Your task to perform on an android device: Open Wikipedia Image 0: 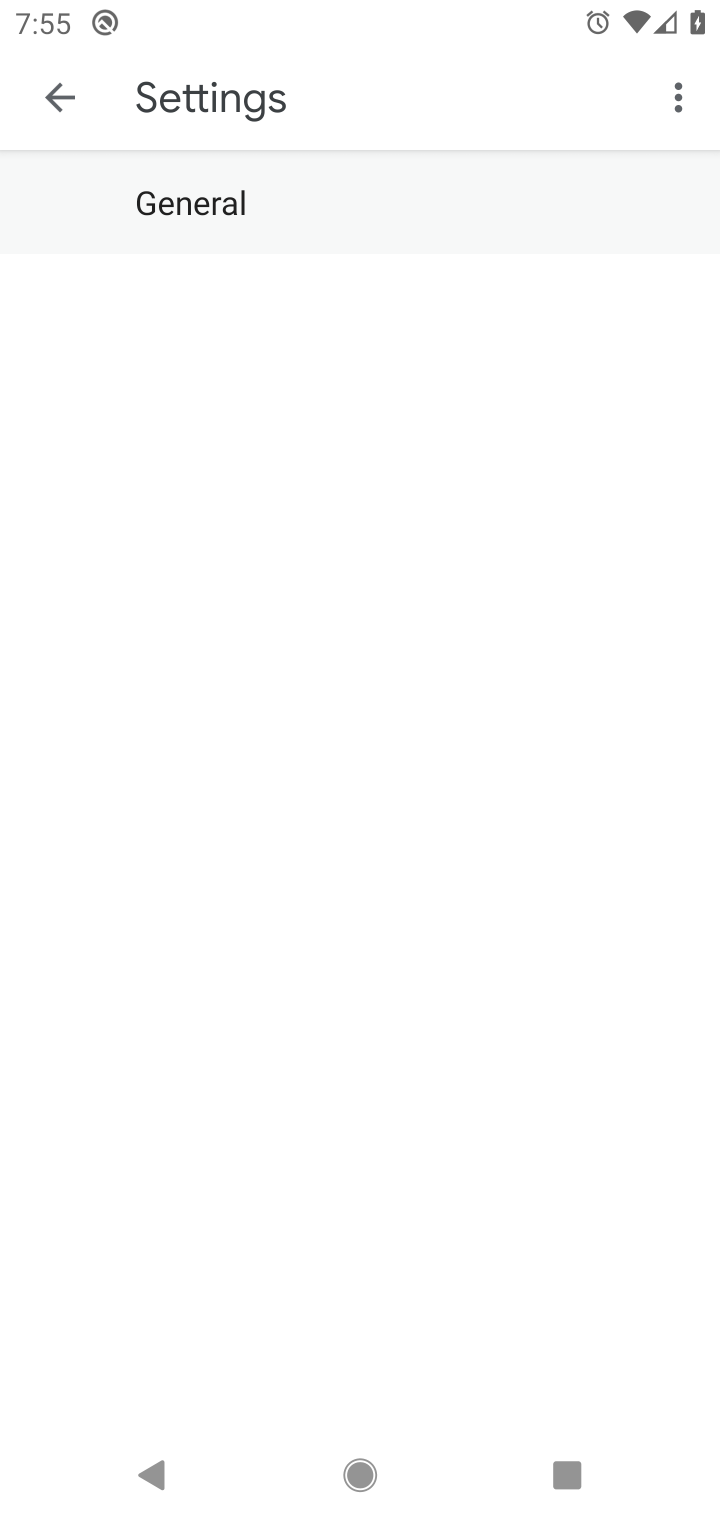
Step 0: press home button
Your task to perform on an android device: Open Wikipedia Image 1: 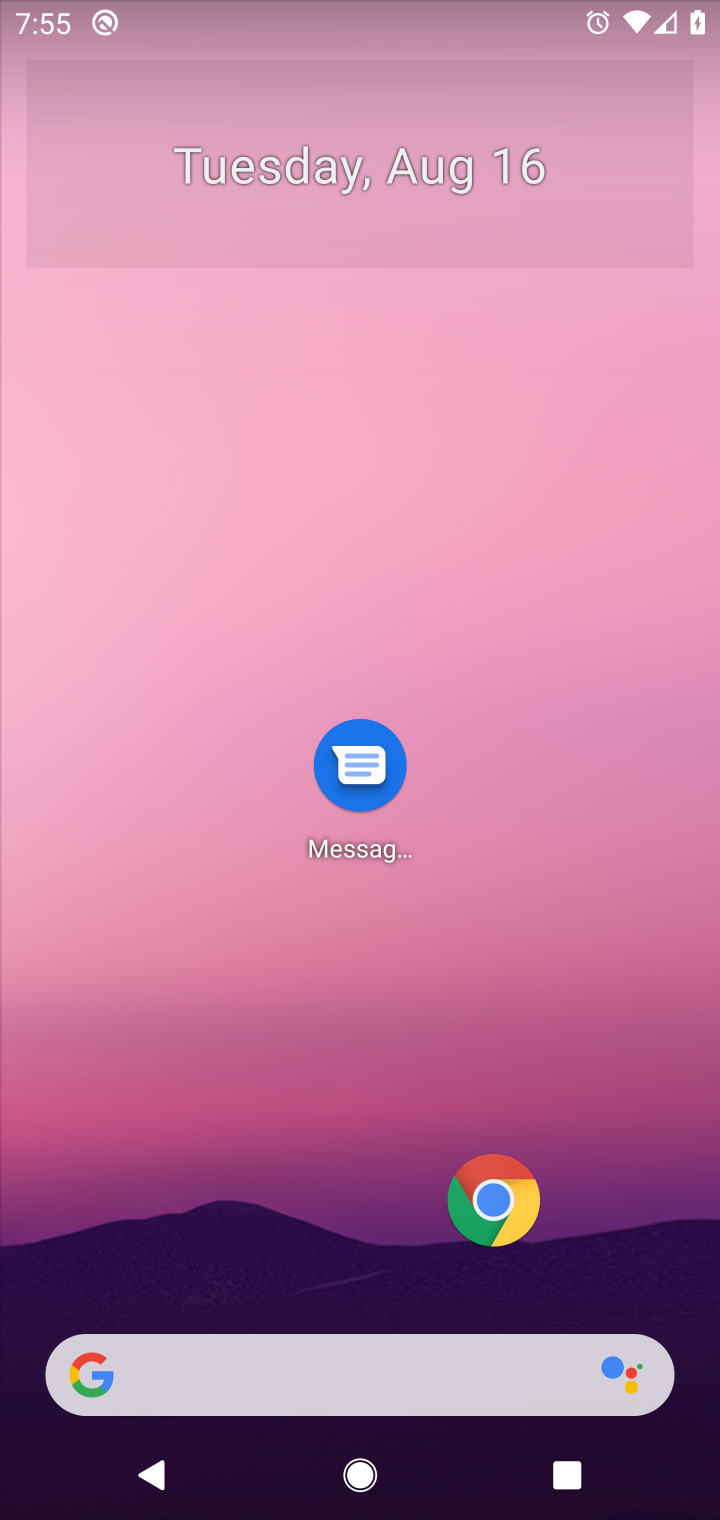
Step 1: click (198, 1340)
Your task to perform on an android device: Open Wikipedia Image 2: 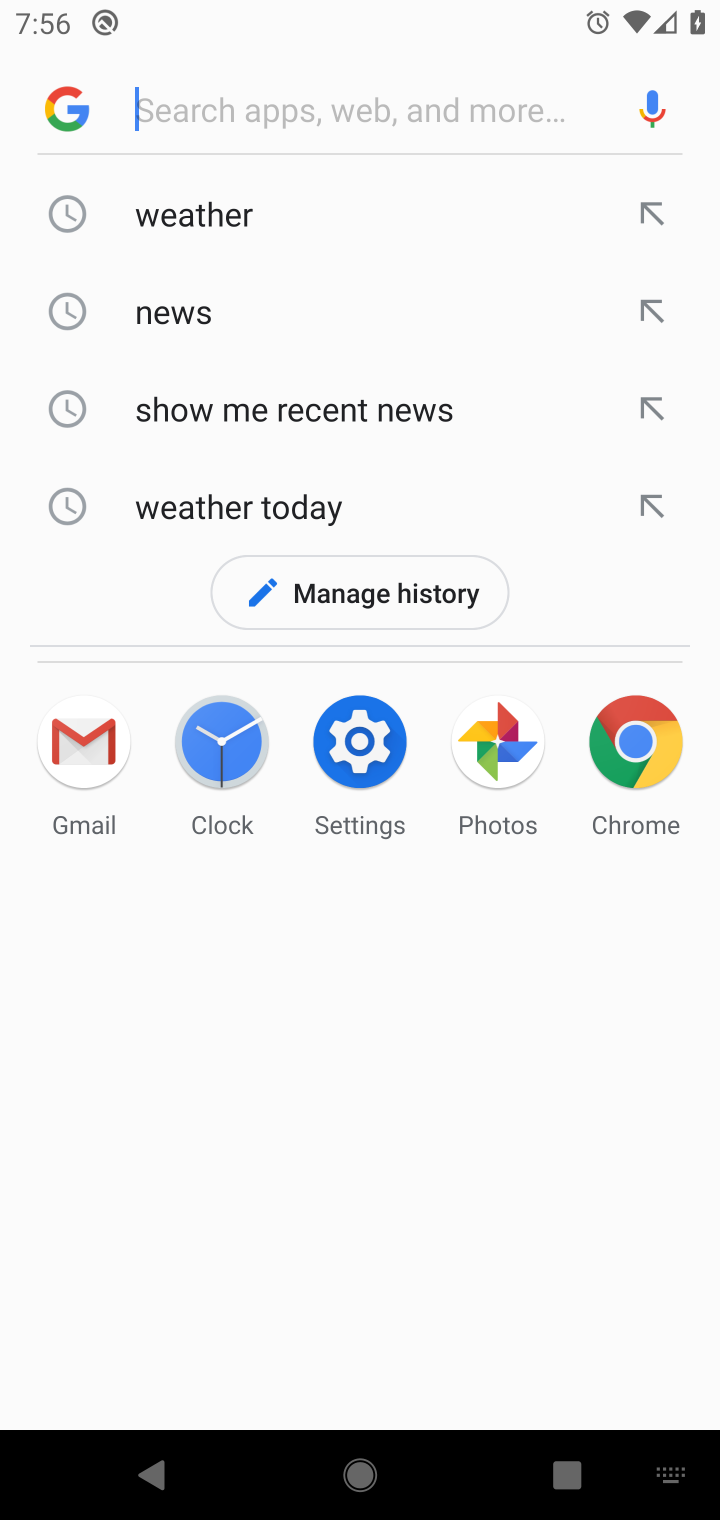
Step 2: type "Wikipedia"
Your task to perform on an android device: Open Wikipedia Image 3: 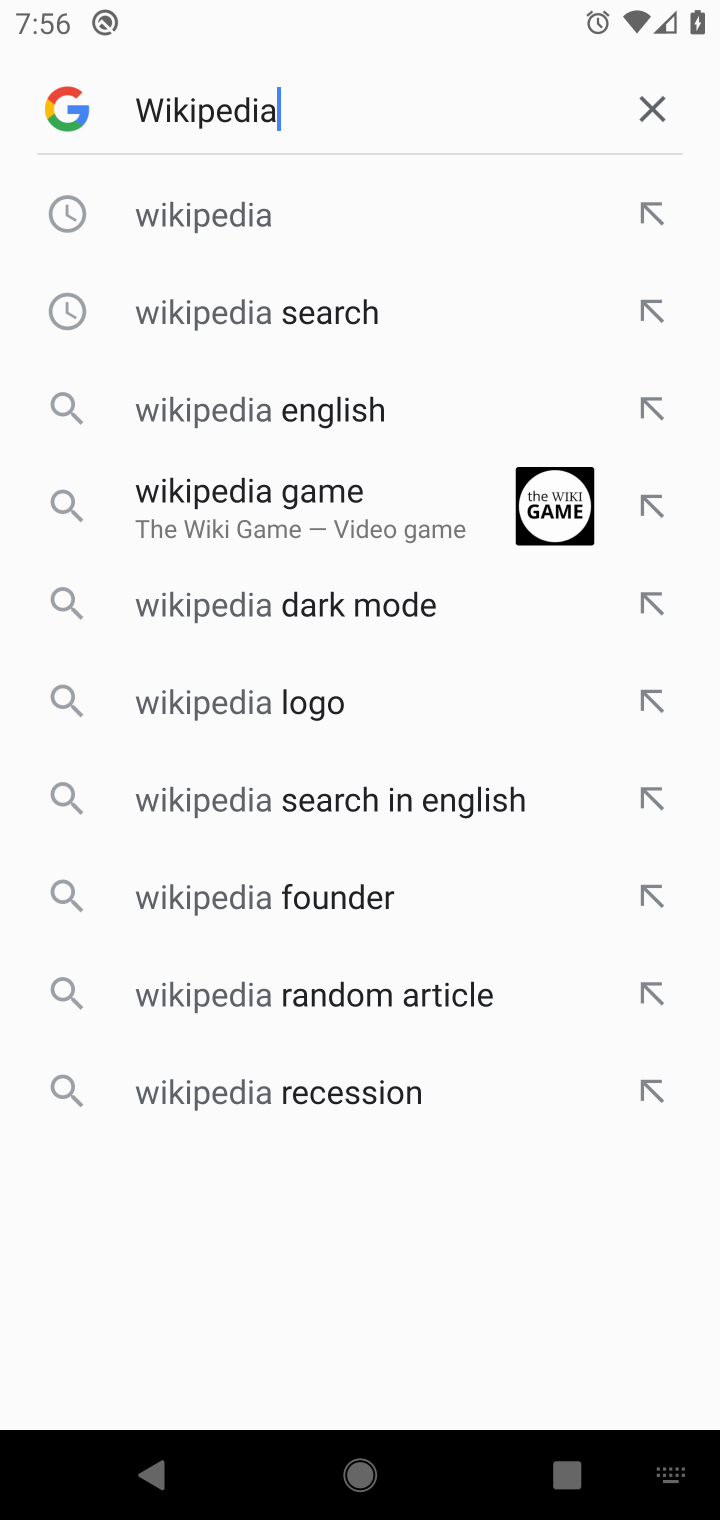
Step 3: click (225, 196)
Your task to perform on an android device: Open Wikipedia Image 4: 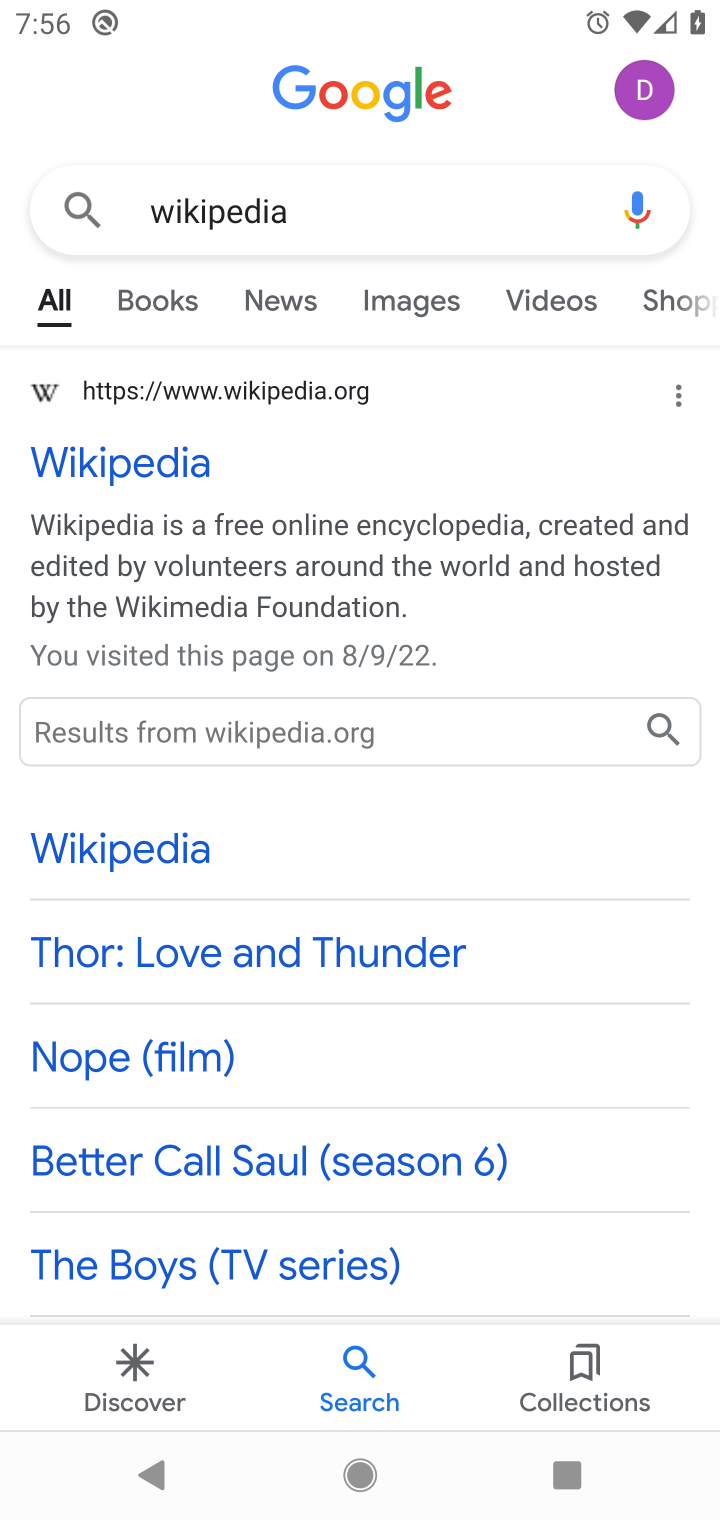
Step 4: task complete